Your task to perform on an android device: change text size in settings app Image 0: 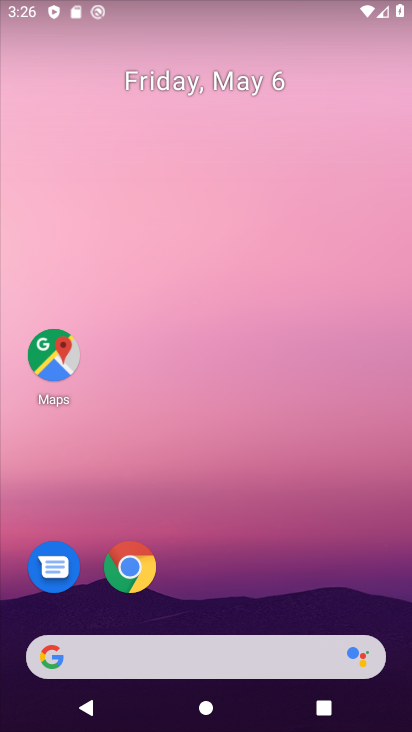
Step 0: drag from (199, 595) to (283, 89)
Your task to perform on an android device: change text size in settings app Image 1: 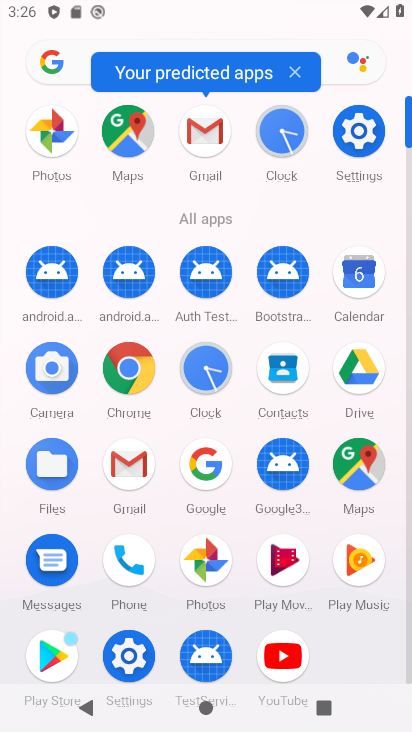
Step 1: click (337, 129)
Your task to perform on an android device: change text size in settings app Image 2: 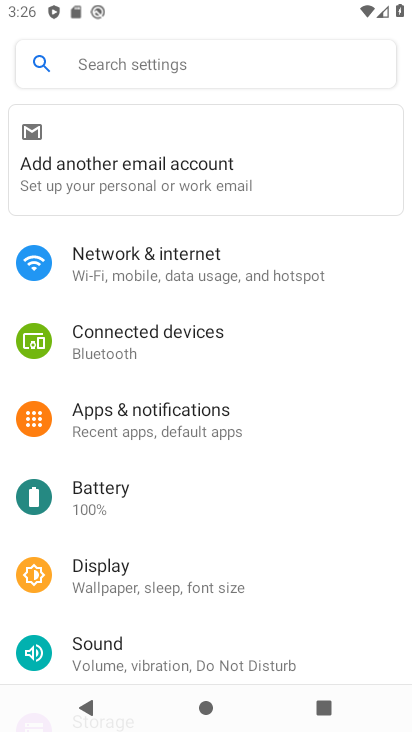
Step 2: click (145, 594)
Your task to perform on an android device: change text size in settings app Image 3: 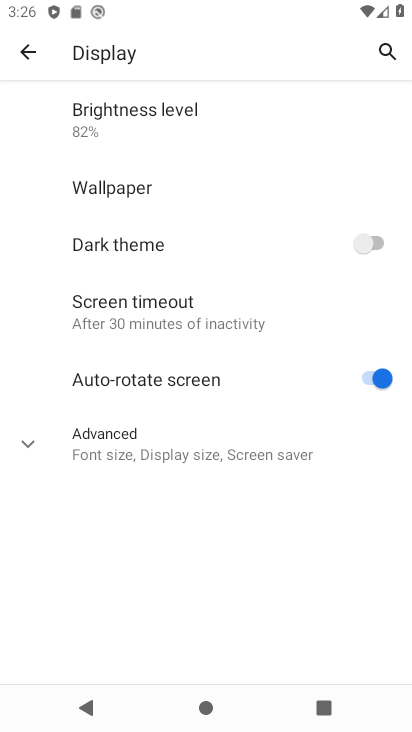
Step 3: click (112, 447)
Your task to perform on an android device: change text size in settings app Image 4: 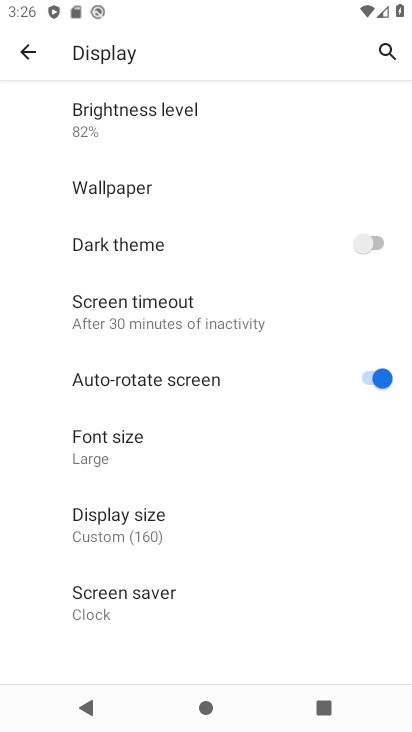
Step 4: click (134, 465)
Your task to perform on an android device: change text size in settings app Image 5: 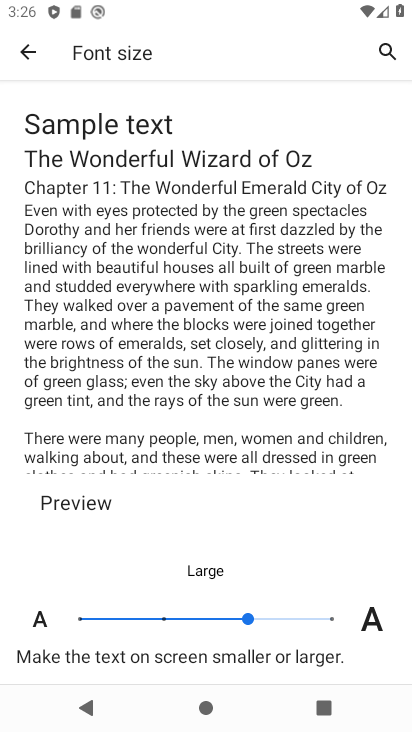
Step 5: click (80, 617)
Your task to perform on an android device: change text size in settings app Image 6: 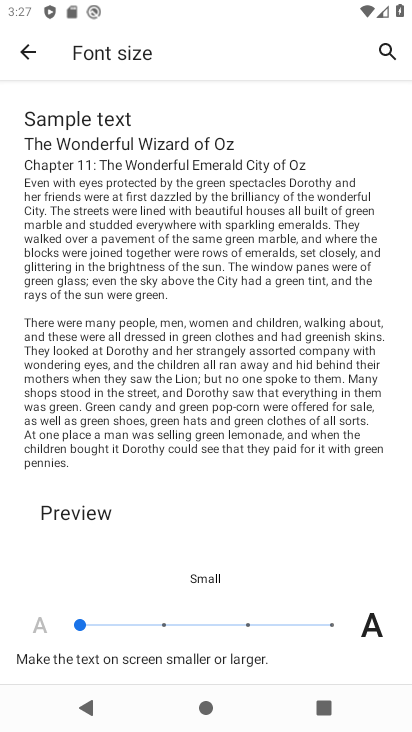
Step 6: task complete